Your task to perform on an android device: turn off javascript in the chrome app Image 0: 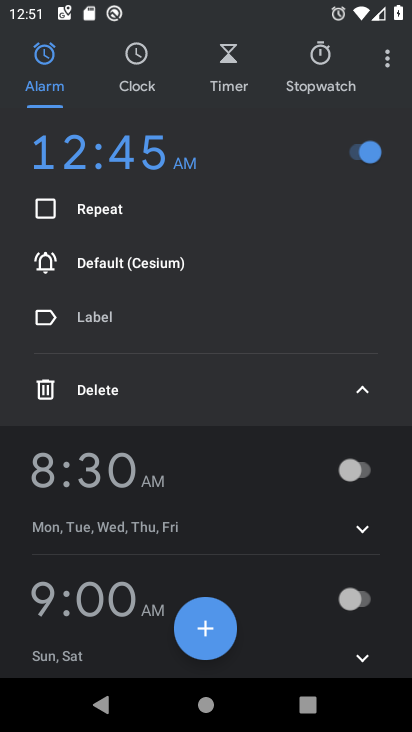
Step 0: press home button
Your task to perform on an android device: turn off javascript in the chrome app Image 1: 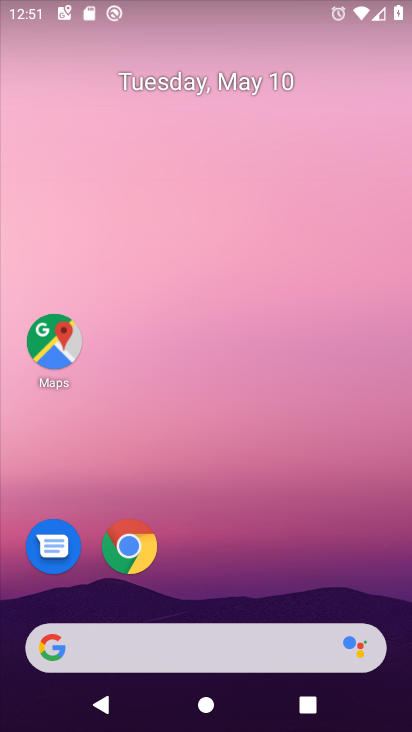
Step 1: press home button
Your task to perform on an android device: turn off javascript in the chrome app Image 2: 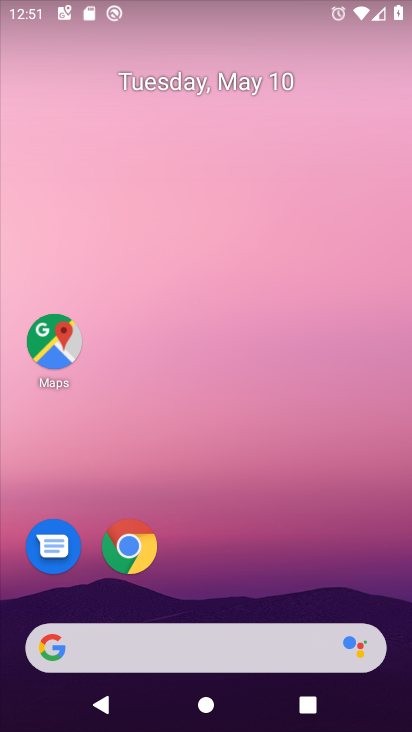
Step 2: click (137, 562)
Your task to perform on an android device: turn off javascript in the chrome app Image 3: 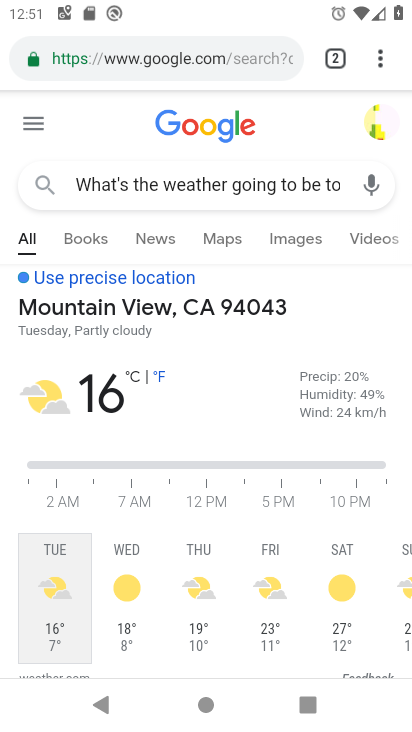
Step 3: drag from (369, 65) to (171, 577)
Your task to perform on an android device: turn off javascript in the chrome app Image 4: 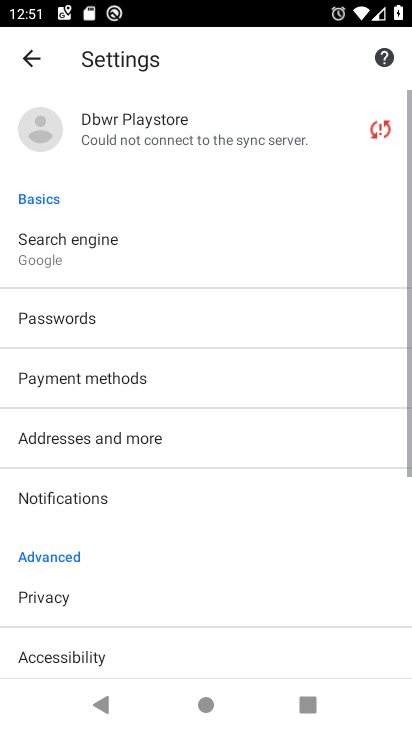
Step 4: drag from (171, 587) to (143, 278)
Your task to perform on an android device: turn off javascript in the chrome app Image 5: 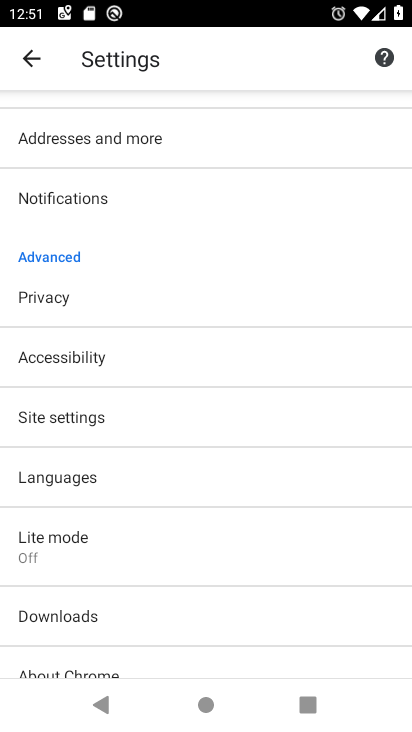
Step 5: click (40, 417)
Your task to perform on an android device: turn off javascript in the chrome app Image 6: 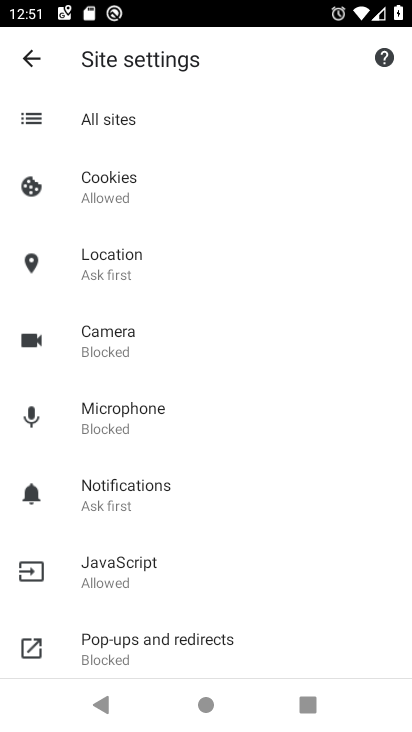
Step 6: click (113, 554)
Your task to perform on an android device: turn off javascript in the chrome app Image 7: 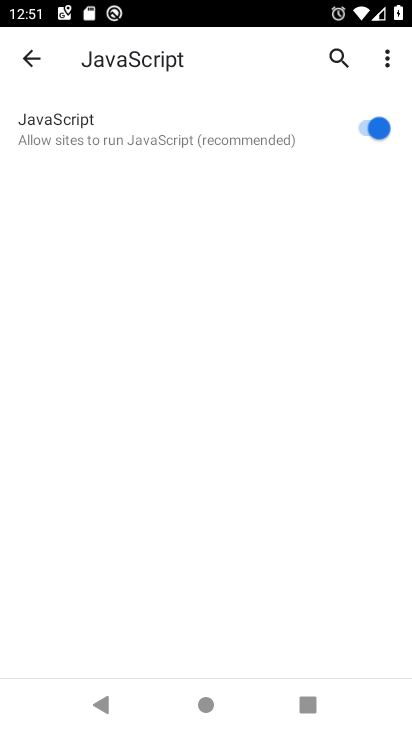
Step 7: click (299, 135)
Your task to perform on an android device: turn off javascript in the chrome app Image 8: 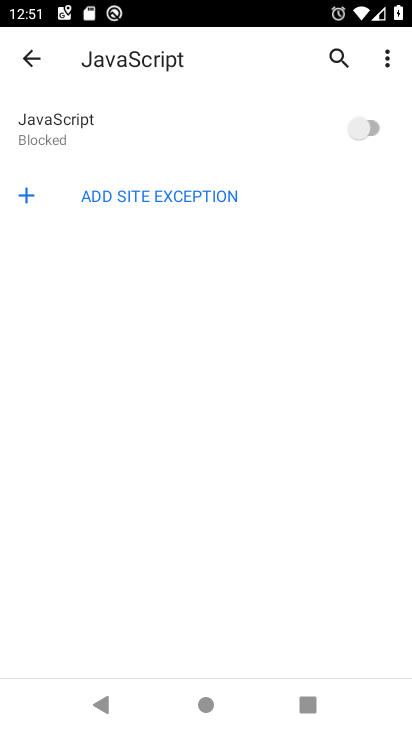
Step 8: task complete